Your task to perform on an android device: Open Maps and search for coffee Image 0: 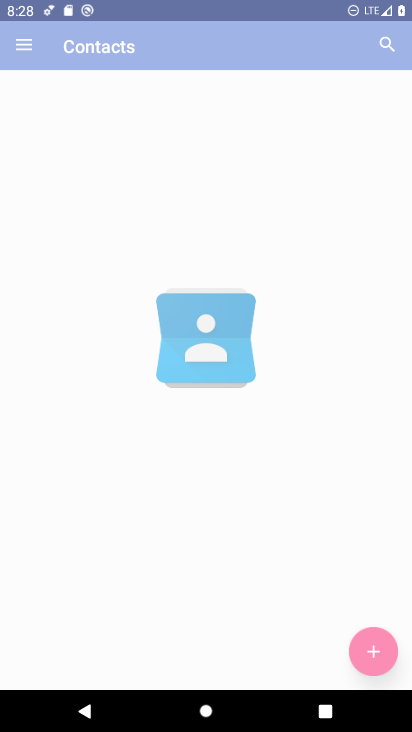
Step 0: drag from (211, 613) to (209, 295)
Your task to perform on an android device: Open Maps and search for coffee Image 1: 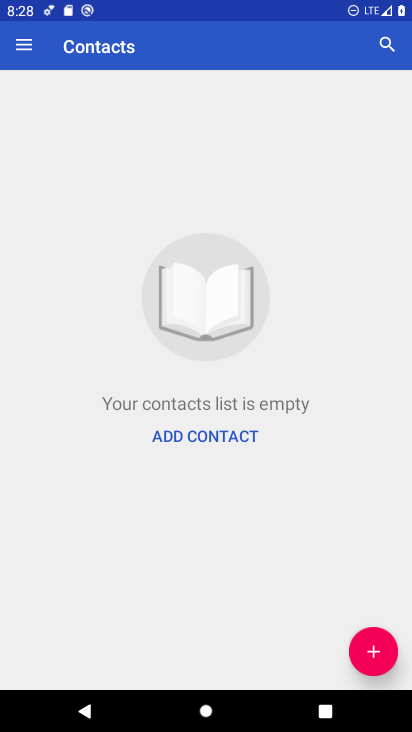
Step 1: press home button
Your task to perform on an android device: Open Maps and search for coffee Image 2: 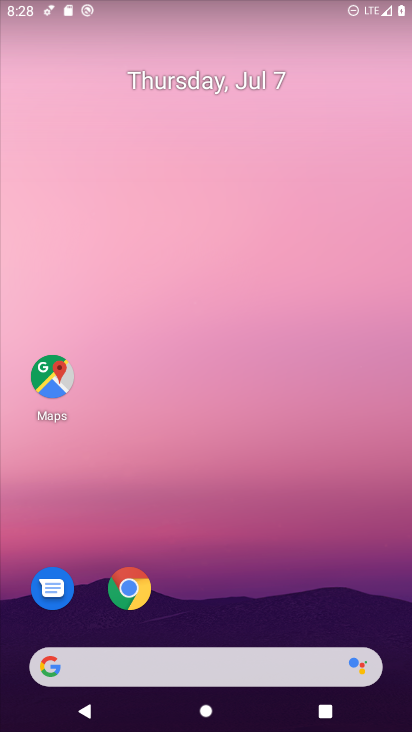
Step 2: drag from (244, 629) to (250, 193)
Your task to perform on an android device: Open Maps and search for coffee Image 3: 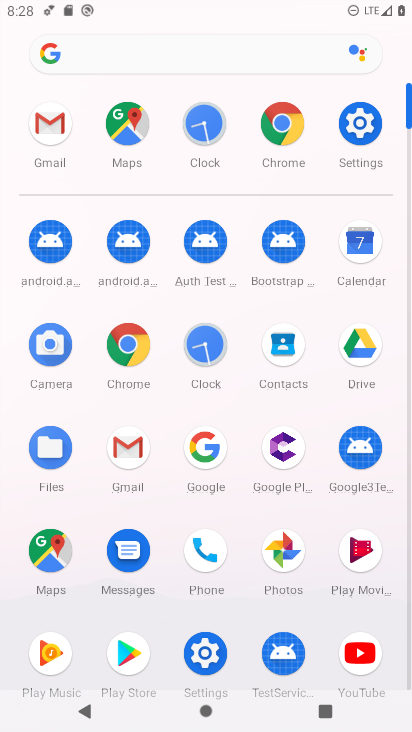
Step 3: click (28, 536)
Your task to perform on an android device: Open Maps and search for coffee Image 4: 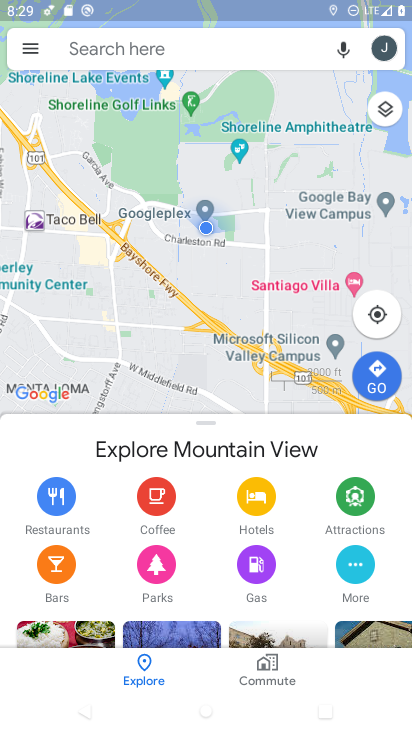
Step 4: click (138, 49)
Your task to perform on an android device: Open Maps and search for coffee Image 5: 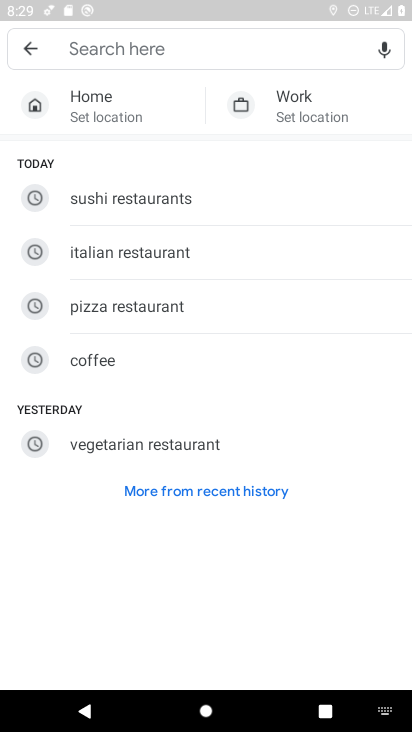
Step 5: type " coffee "
Your task to perform on an android device: Open Maps and search for coffee Image 6: 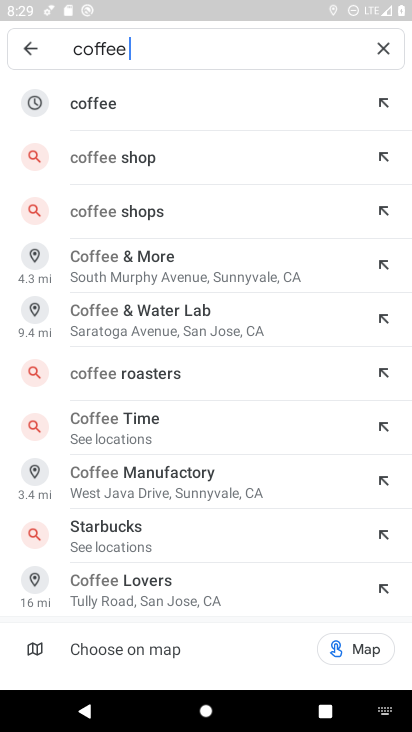
Step 6: click (185, 81)
Your task to perform on an android device: Open Maps and search for coffee Image 7: 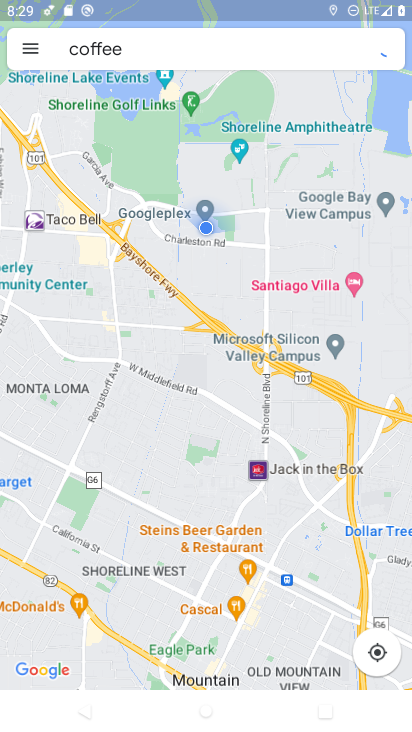
Step 7: task complete